Your task to perform on an android device: turn on the 12-hour format for clock Image 0: 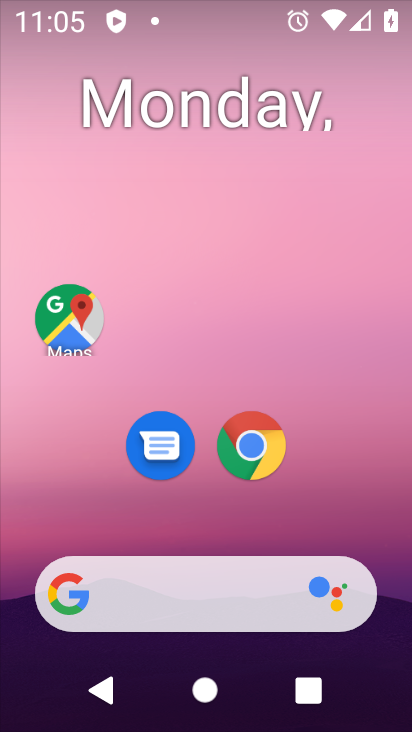
Step 0: drag from (340, 463) to (134, 111)
Your task to perform on an android device: turn on the 12-hour format for clock Image 1: 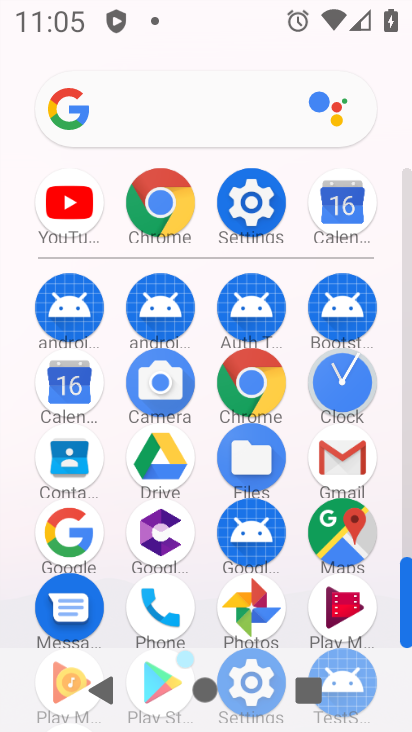
Step 1: click (336, 406)
Your task to perform on an android device: turn on the 12-hour format for clock Image 2: 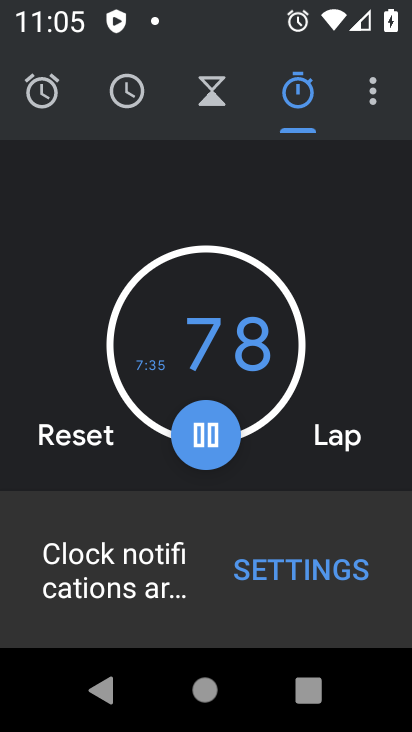
Step 2: click (372, 88)
Your task to perform on an android device: turn on the 12-hour format for clock Image 3: 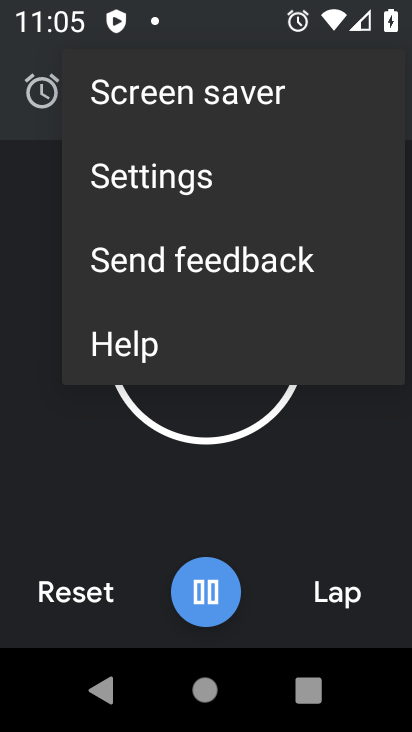
Step 3: click (174, 188)
Your task to perform on an android device: turn on the 12-hour format for clock Image 4: 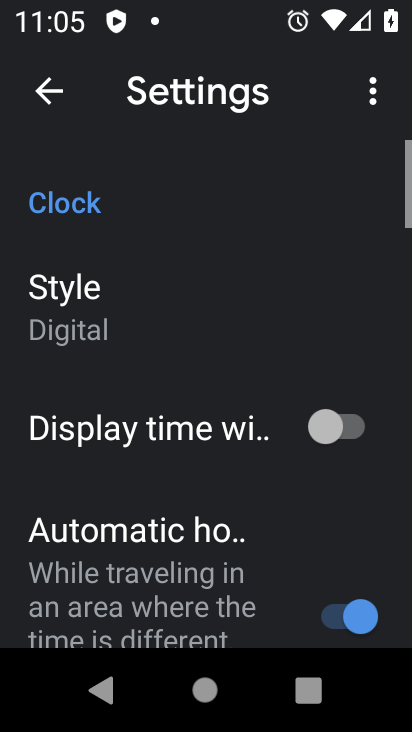
Step 4: drag from (172, 561) to (187, 207)
Your task to perform on an android device: turn on the 12-hour format for clock Image 5: 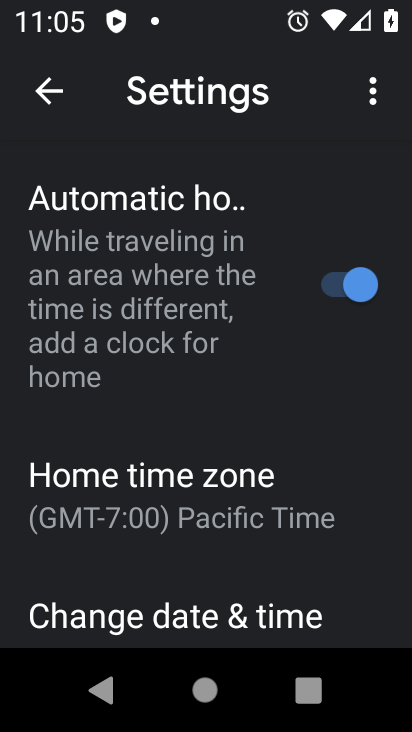
Step 5: drag from (221, 586) to (272, 267)
Your task to perform on an android device: turn on the 12-hour format for clock Image 6: 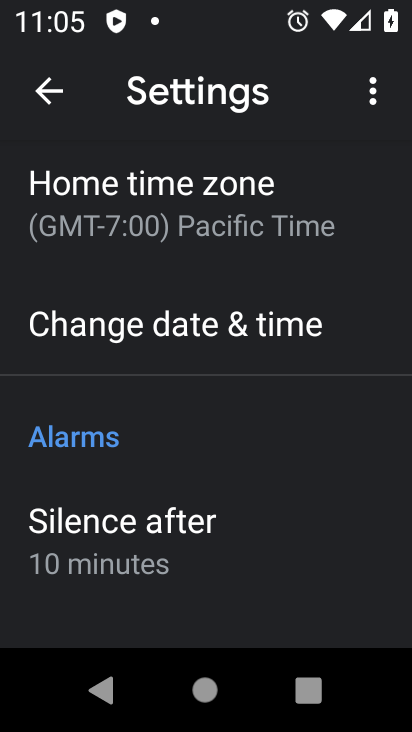
Step 6: click (194, 330)
Your task to perform on an android device: turn on the 12-hour format for clock Image 7: 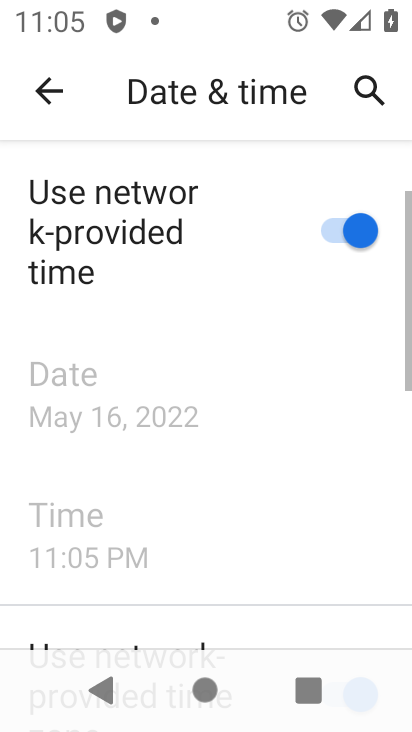
Step 7: task complete